Your task to perform on an android device: turn off location Image 0: 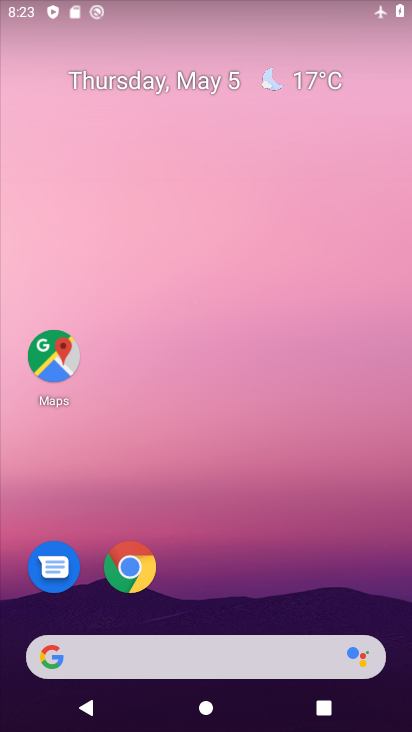
Step 0: drag from (219, 705) to (219, 192)
Your task to perform on an android device: turn off location Image 1: 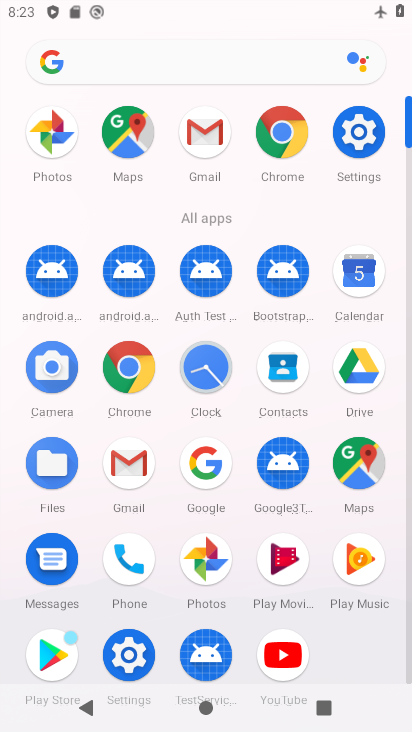
Step 1: click (355, 130)
Your task to perform on an android device: turn off location Image 2: 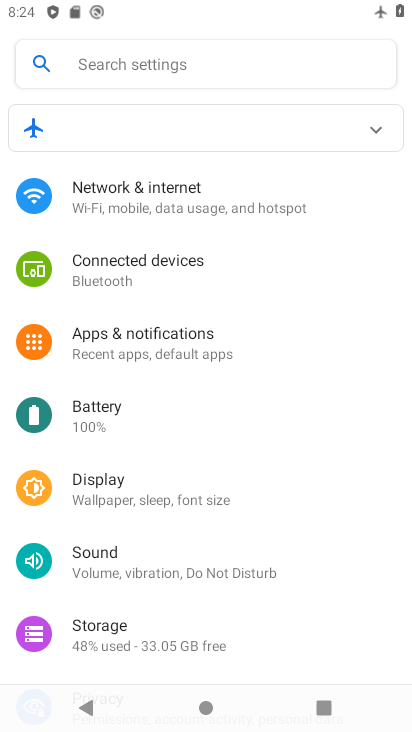
Step 2: drag from (145, 618) to (132, 215)
Your task to perform on an android device: turn off location Image 3: 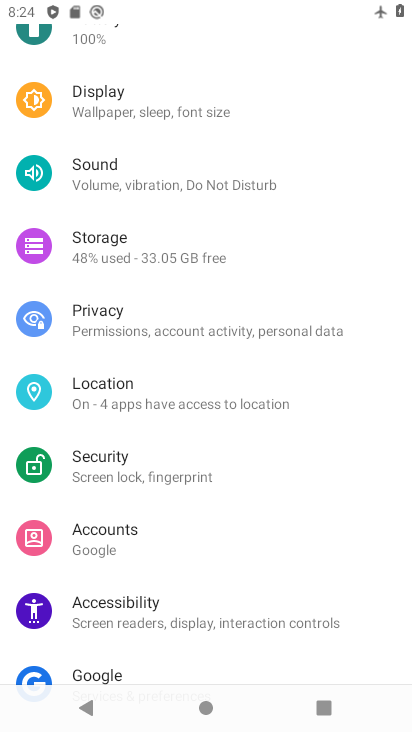
Step 3: click (129, 396)
Your task to perform on an android device: turn off location Image 4: 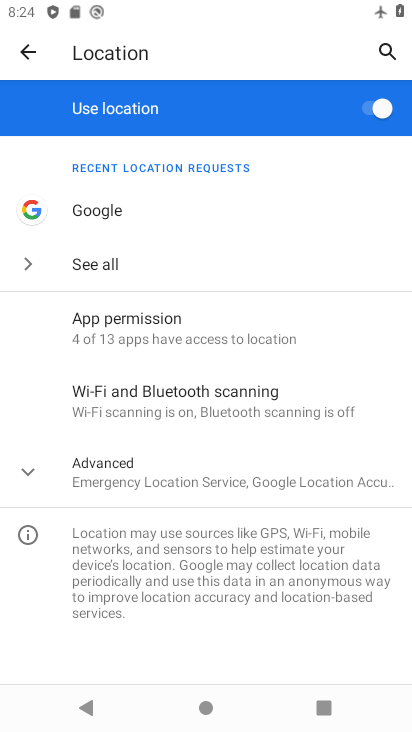
Step 4: click (369, 105)
Your task to perform on an android device: turn off location Image 5: 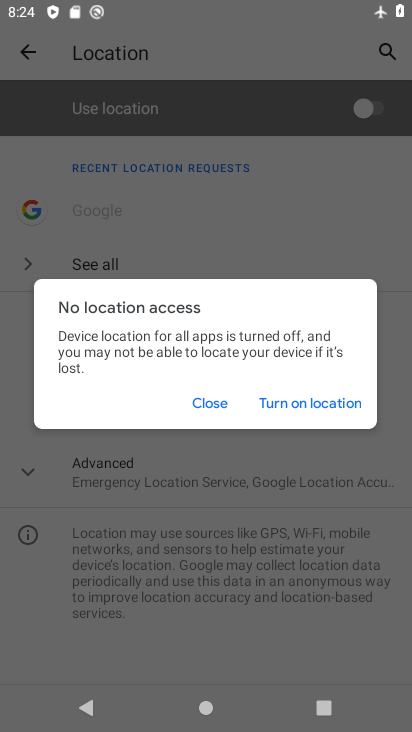
Step 5: click (204, 403)
Your task to perform on an android device: turn off location Image 6: 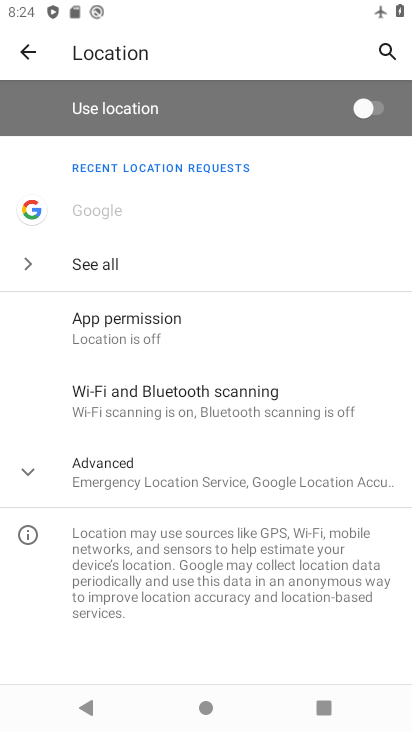
Step 6: task complete